Your task to perform on an android device: Show me productivity apps on the Play Store Image 0: 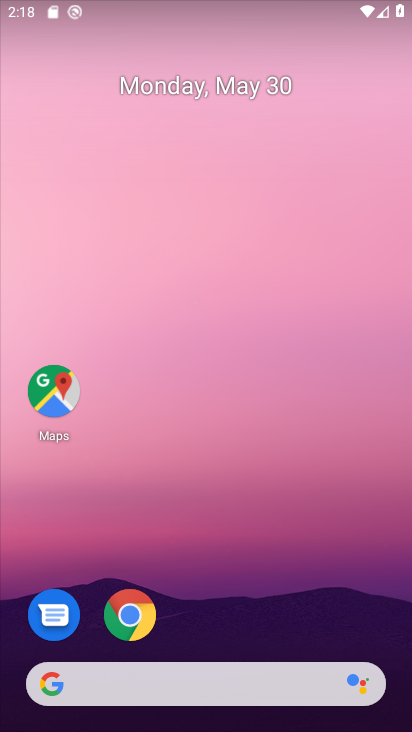
Step 0: drag from (227, 592) to (266, 11)
Your task to perform on an android device: Show me productivity apps on the Play Store Image 1: 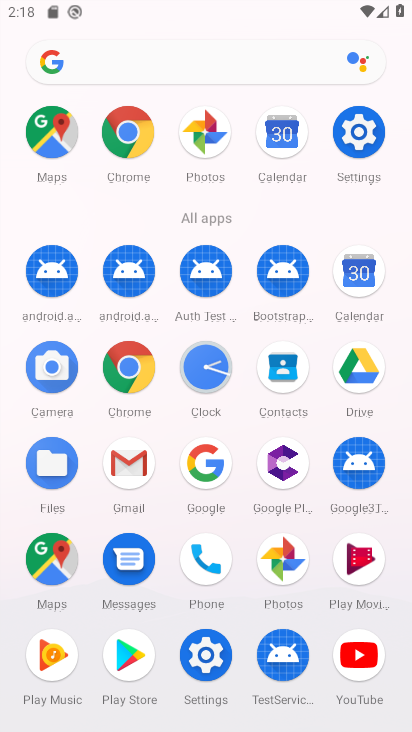
Step 1: click (133, 643)
Your task to perform on an android device: Show me productivity apps on the Play Store Image 2: 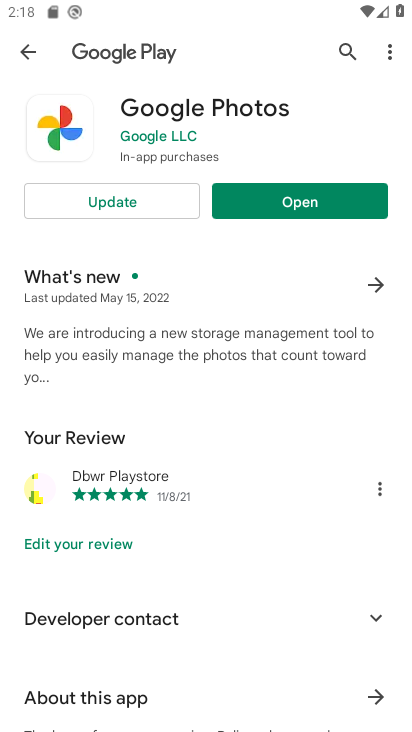
Step 2: click (29, 48)
Your task to perform on an android device: Show me productivity apps on the Play Store Image 3: 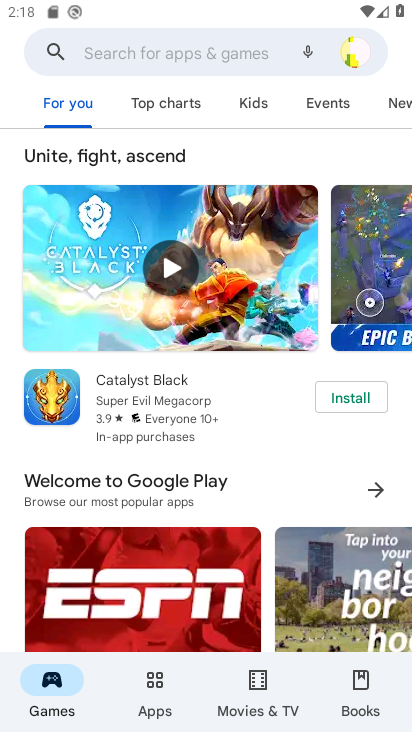
Step 3: click (146, 683)
Your task to perform on an android device: Show me productivity apps on the Play Store Image 4: 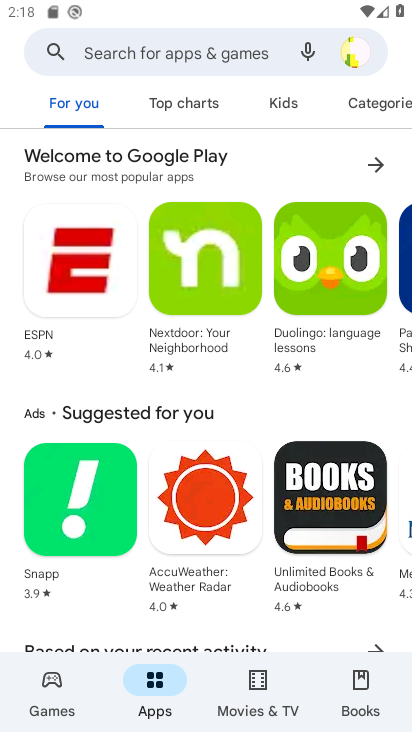
Step 4: click (373, 96)
Your task to perform on an android device: Show me productivity apps on the Play Store Image 5: 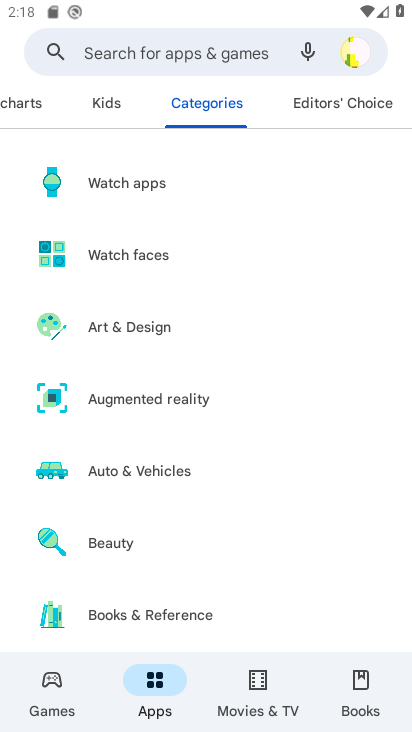
Step 5: drag from (279, 542) to (253, 0)
Your task to perform on an android device: Show me productivity apps on the Play Store Image 6: 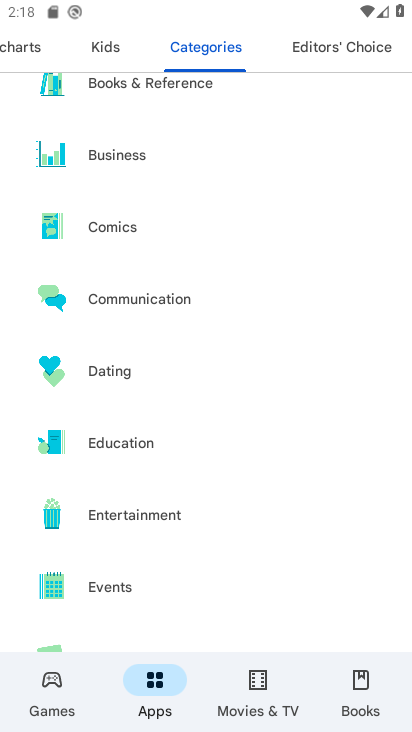
Step 6: drag from (248, 620) to (272, 8)
Your task to perform on an android device: Show me productivity apps on the Play Store Image 7: 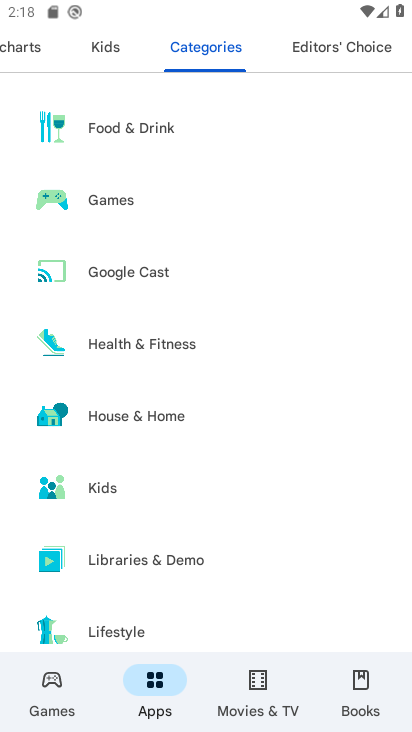
Step 7: drag from (235, 644) to (307, 7)
Your task to perform on an android device: Show me productivity apps on the Play Store Image 8: 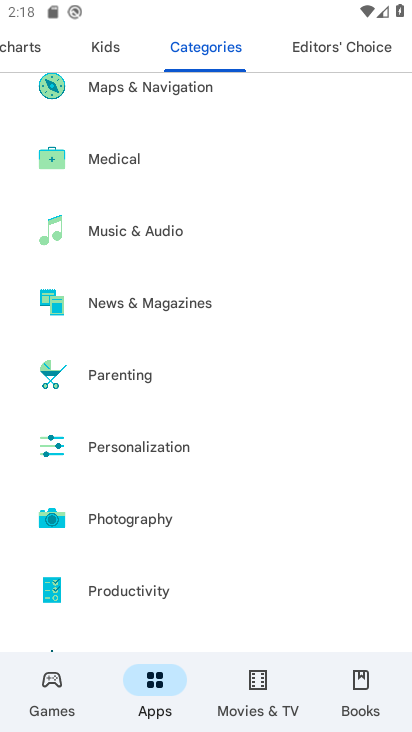
Step 8: click (191, 582)
Your task to perform on an android device: Show me productivity apps on the Play Store Image 9: 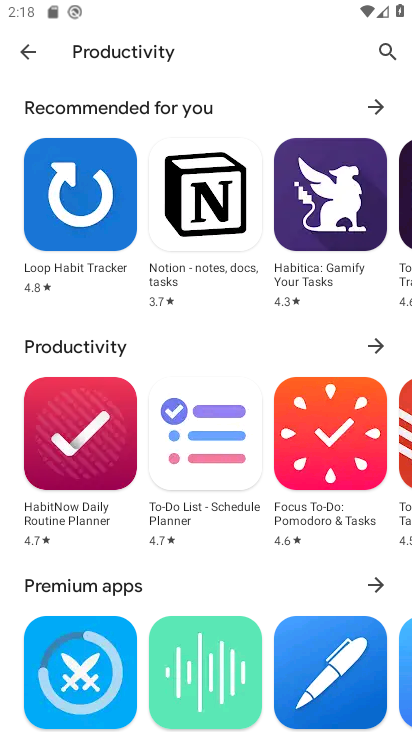
Step 9: click (379, 337)
Your task to perform on an android device: Show me productivity apps on the Play Store Image 10: 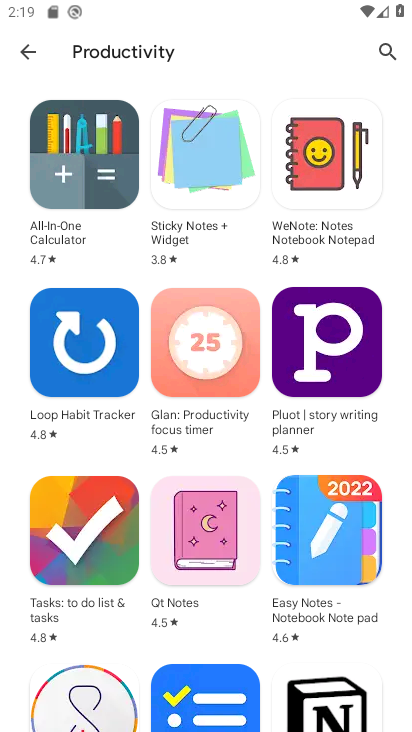
Step 10: task complete